Your task to perform on an android device: install app "Airtel Thanks" Image 0: 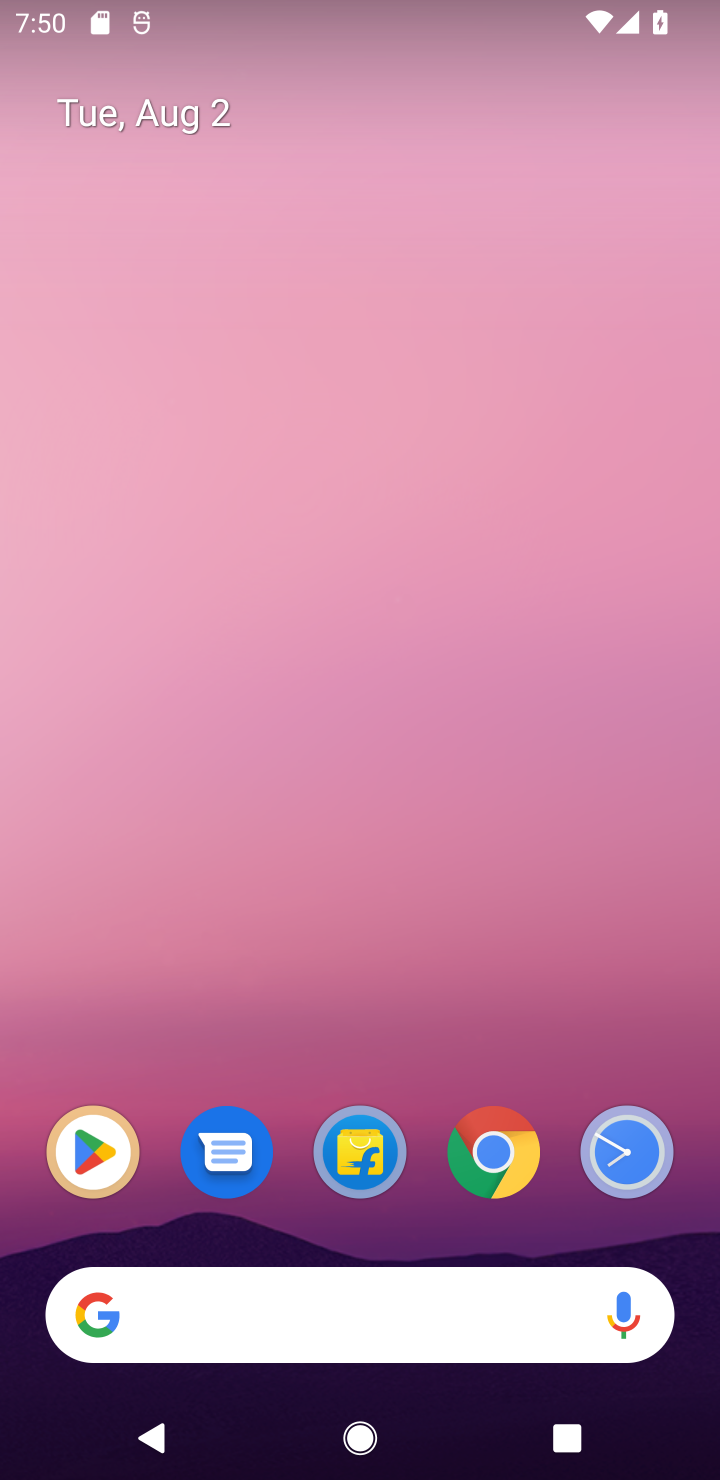
Step 0: click (84, 1167)
Your task to perform on an android device: install app "Airtel Thanks" Image 1: 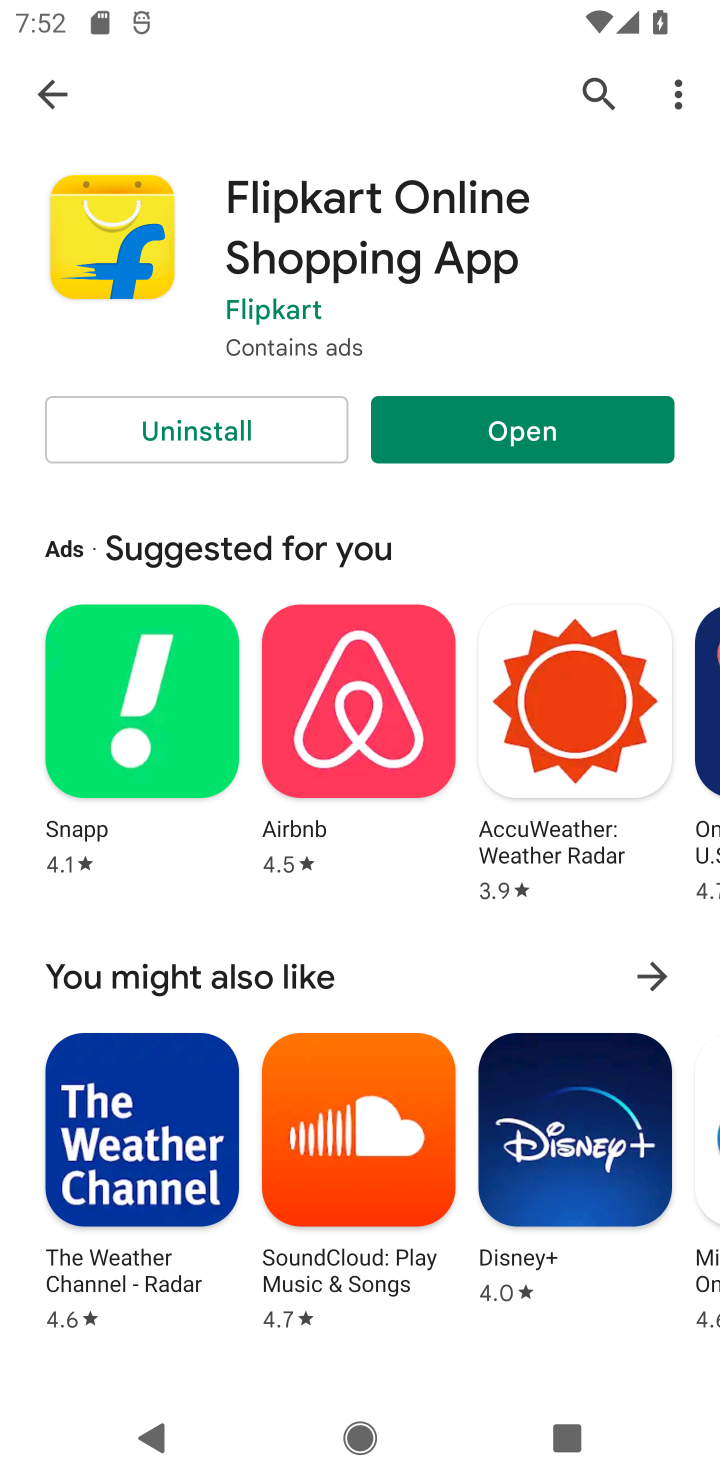
Step 1: click (501, 427)
Your task to perform on an android device: install app "Airtel Thanks" Image 2: 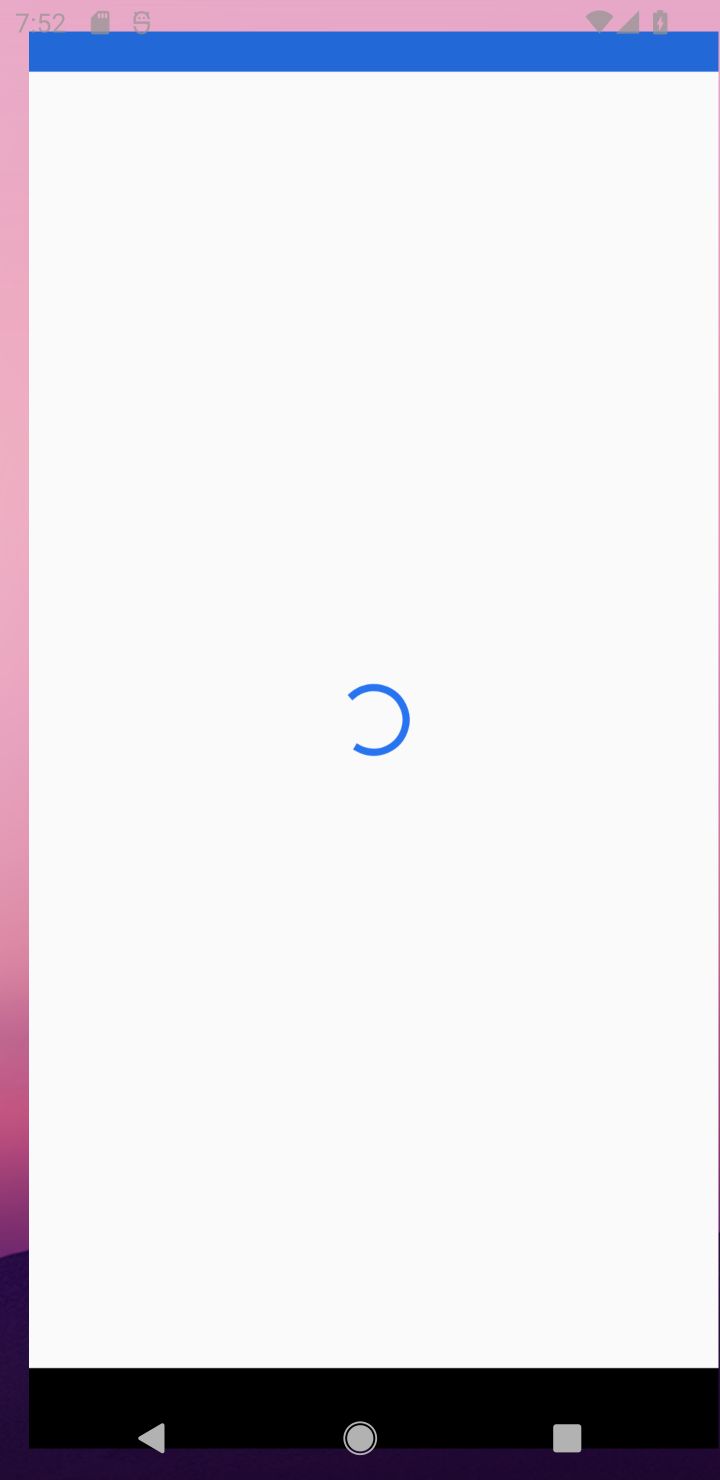
Step 2: task complete